Your task to perform on an android device: turn on airplane mode Image 0: 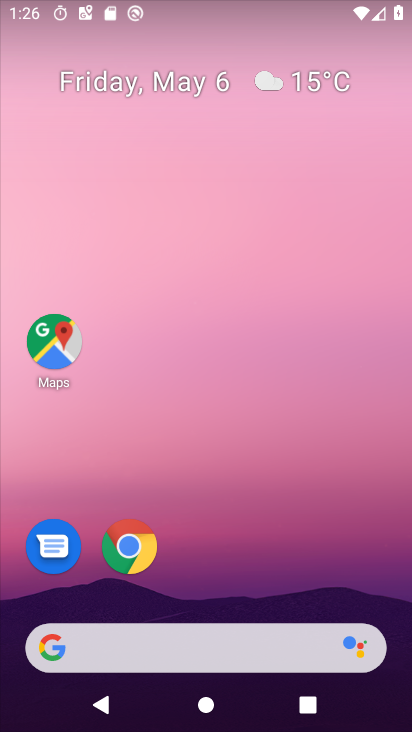
Step 0: drag from (307, 550) to (262, 140)
Your task to perform on an android device: turn on airplane mode Image 1: 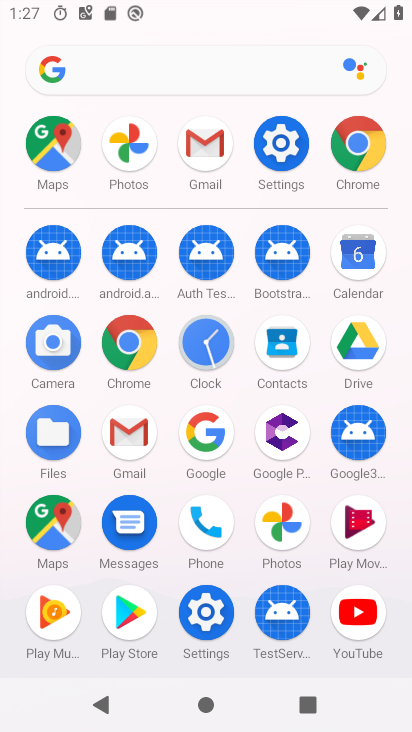
Step 1: click (273, 150)
Your task to perform on an android device: turn on airplane mode Image 2: 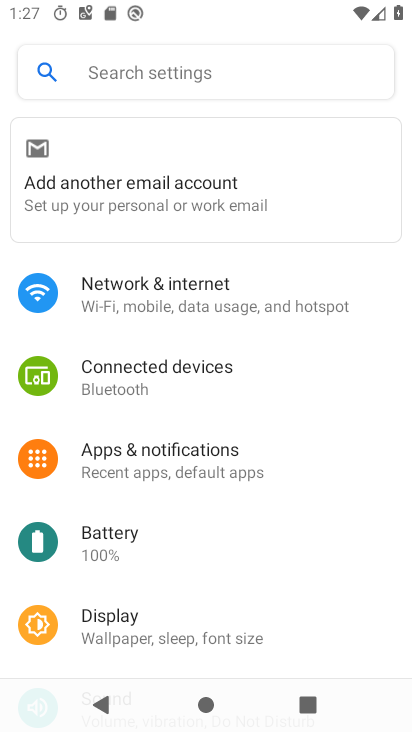
Step 2: click (150, 297)
Your task to perform on an android device: turn on airplane mode Image 3: 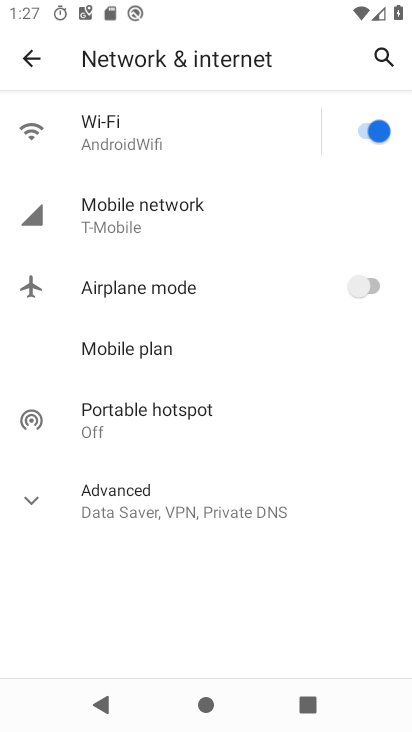
Step 3: click (377, 282)
Your task to perform on an android device: turn on airplane mode Image 4: 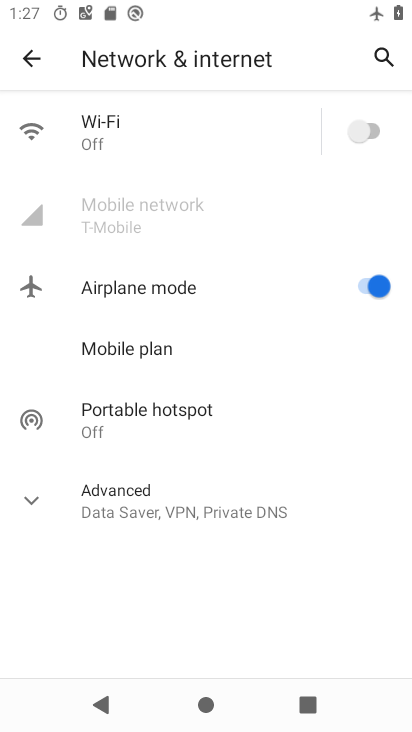
Step 4: task complete